Your task to perform on an android device: check the backup settings in the google photos Image 0: 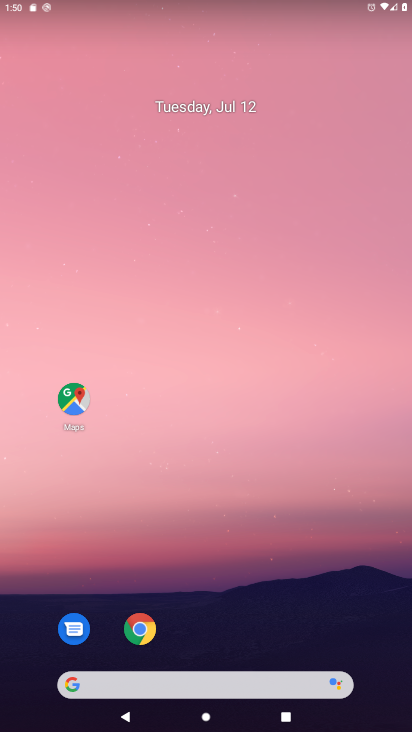
Step 0: drag from (213, 669) to (176, 100)
Your task to perform on an android device: check the backup settings in the google photos Image 1: 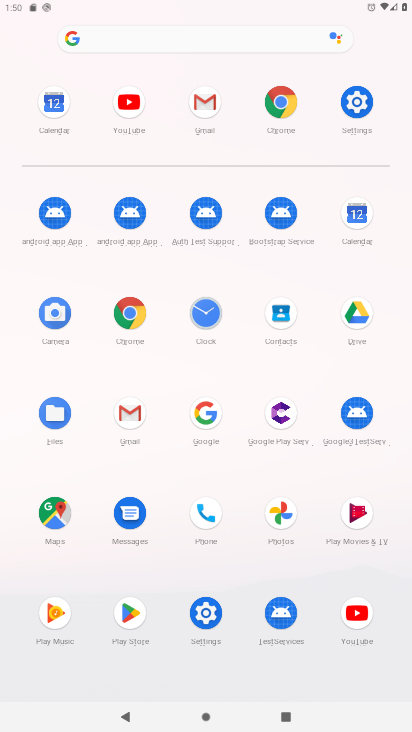
Step 1: click (280, 514)
Your task to perform on an android device: check the backup settings in the google photos Image 2: 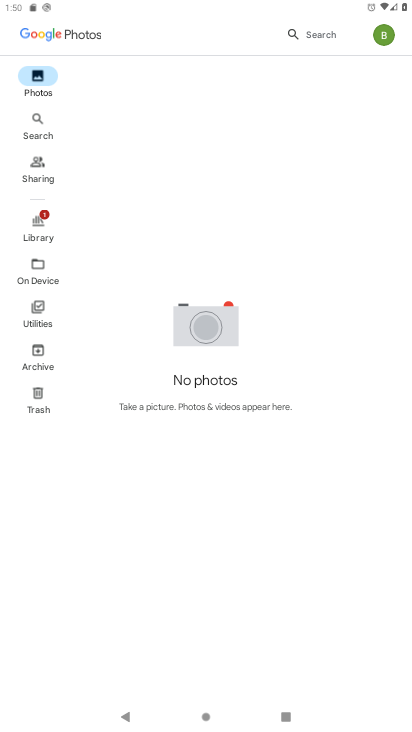
Step 2: click (386, 29)
Your task to perform on an android device: check the backup settings in the google photos Image 3: 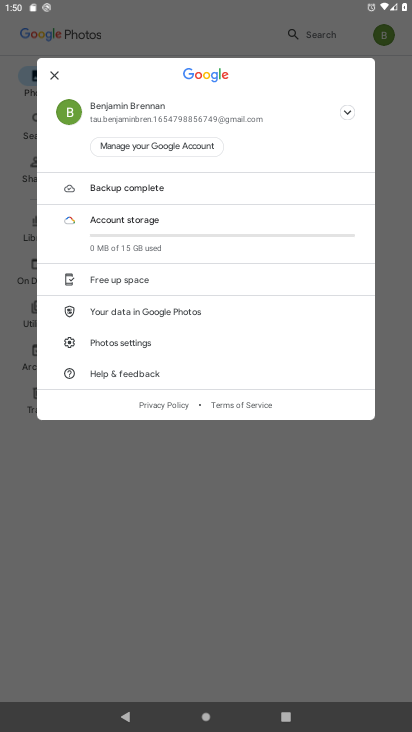
Step 3: click (170, 344)
Your task to perform on an android device: check the backup settings in the google photos Image 4: 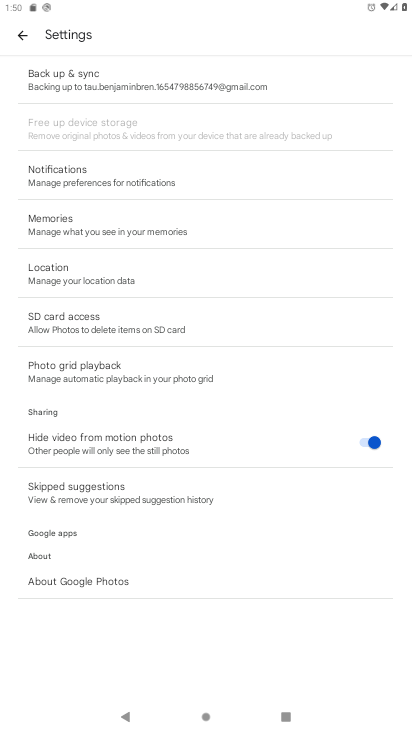
Step 4: click (118, 86)
Your task to perform on an android device: check the backup settings in the google photos Image 5: 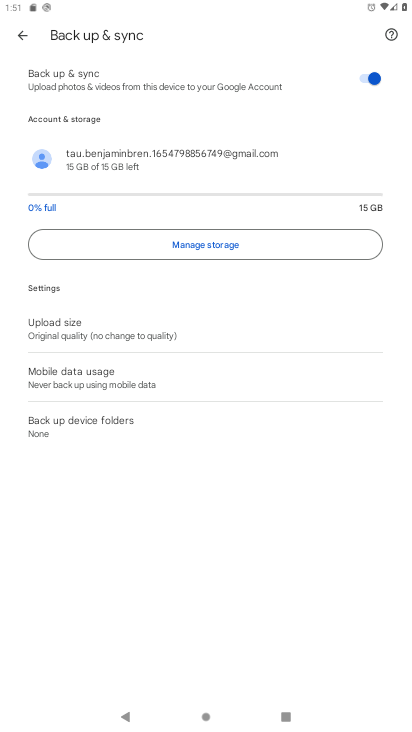
Step 5: task complete